Your task to perform on an android device: turn off notifications in google photos Image 0: 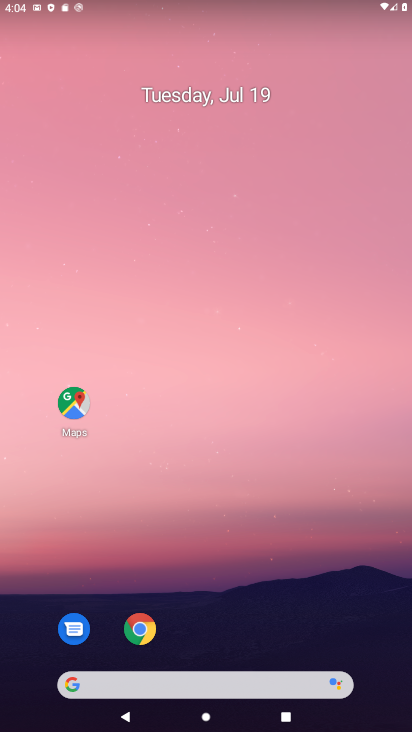
Step 0: drag from (272, 673) to (209, 296)
Your task to perform on an android device: turn off notifications in google photos Image 1: 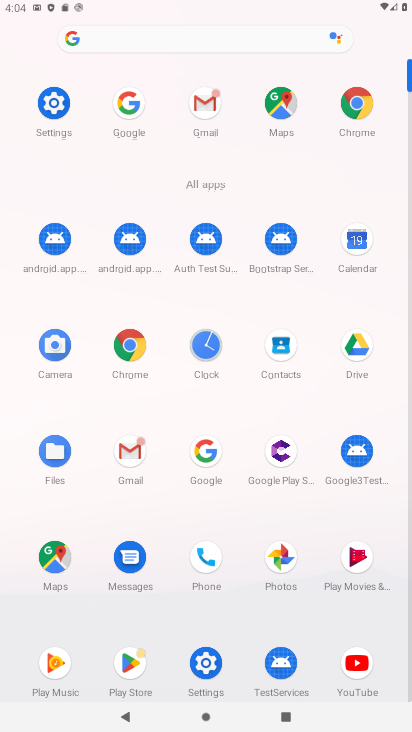
Step 1: click (280, 542)
Your task to perform on an android device: turn off notifications in google photos Image 2: 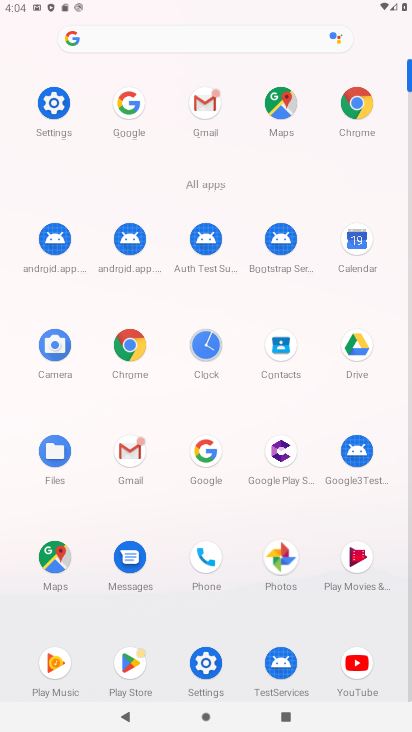
Step 2: click (278, 548)
Your task to perform on an android device: turn off notifications in google photos Image 3: 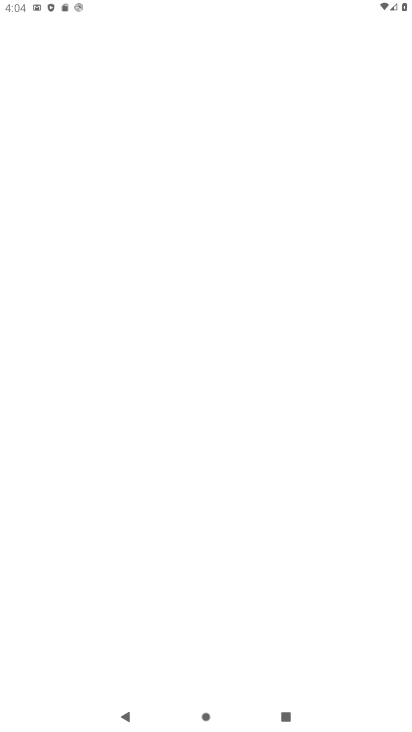
Step 3: click (282, 549)
Your task to perform on an android device: turn off notifications in google photos Image 4: 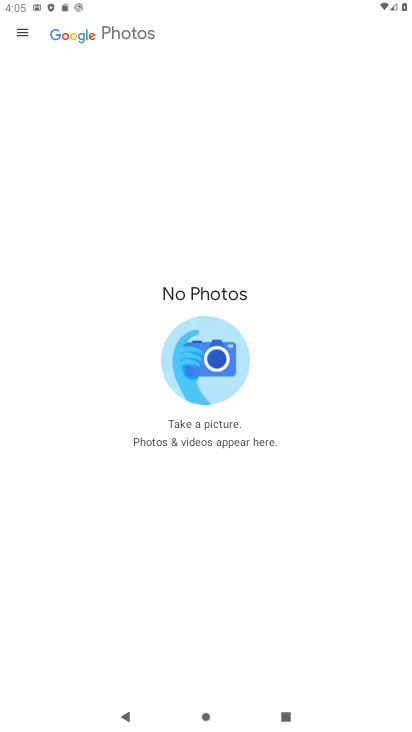
Step 4: drag from (27, 29) to (75, 196)
Your task to perform on an android device: turn off notifications in google photos Image 5: 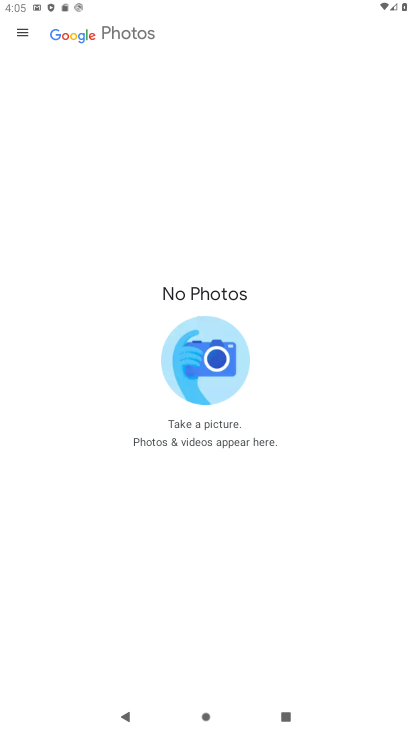
Step 5: click (25, 33)
Your task to perform on an android device: turn off notifications in google photos Image 6: 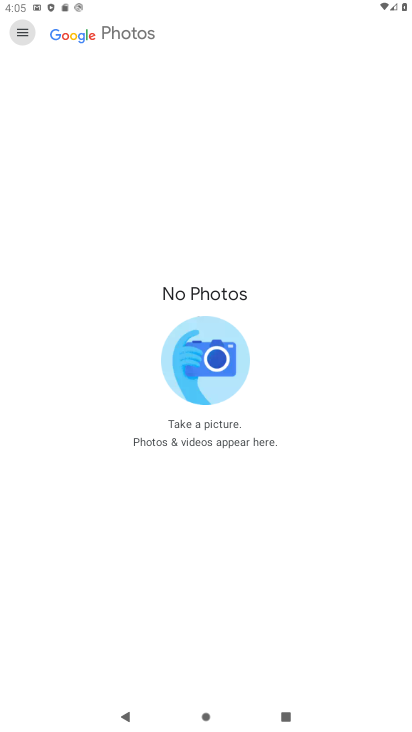
Step 6: click (27, 32)
Your task to perform on an android device: turn off notifications in google photos Image 7: 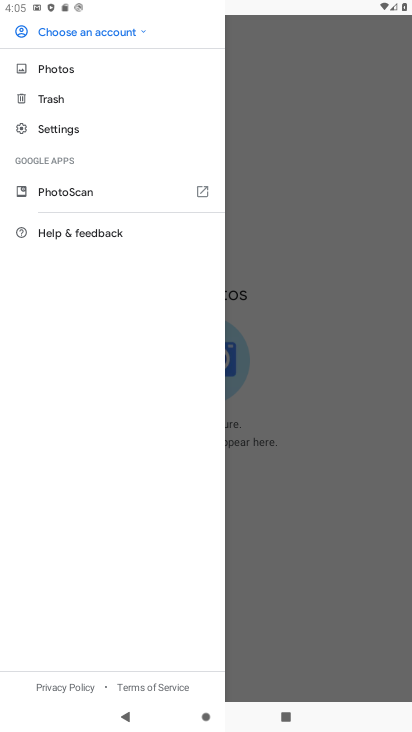
Step 7: click (52, 127)
Your task to perform on an android device: turn off notifications in google photos Image 8: 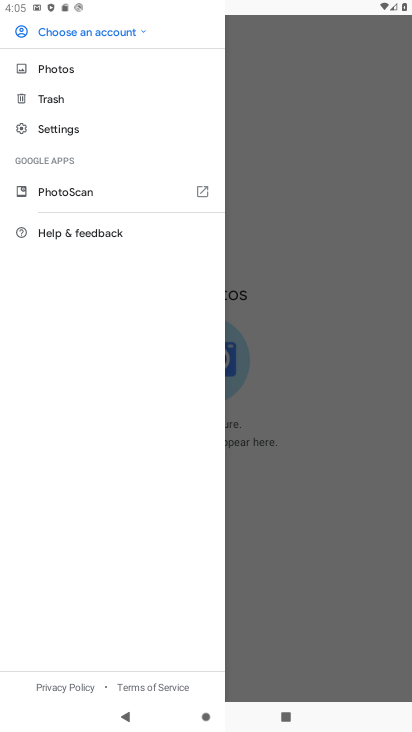
Step 8: click (60, 122)
Your task to perform on an android device: turn off notifications in google photos Image 9: 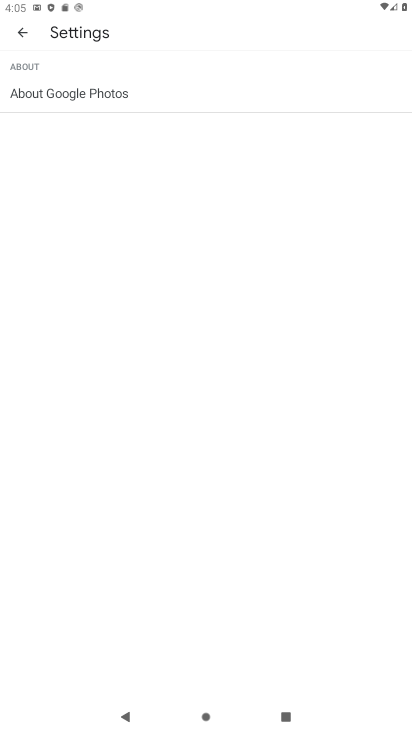
Step 9: click (13, 34)
Your task to perform on an android device: turn off notifications in google photos Image 10: 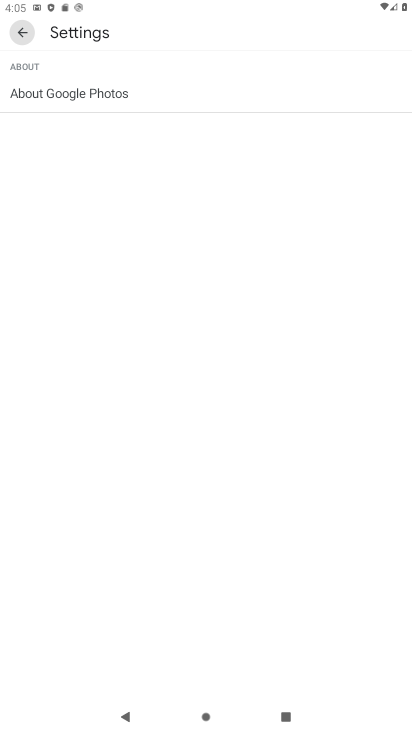
Step 10: click (10, 35)
Your task to perform on an android device: turn off notifications in google photos Image 11: 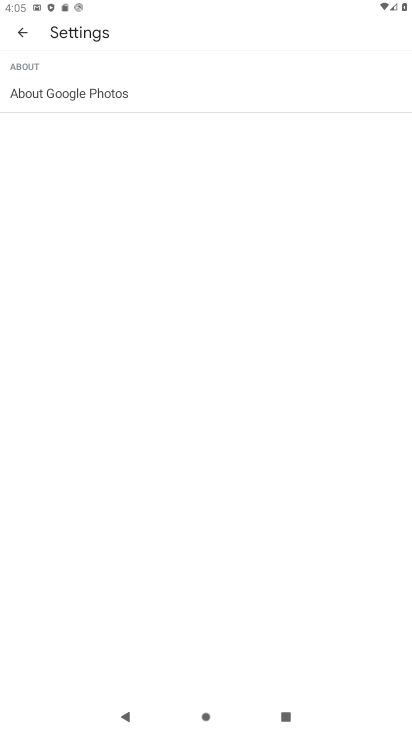
Step 11: click (10, 35)
Your task to perform on an android device: turn off notifications in google photos Image 12: 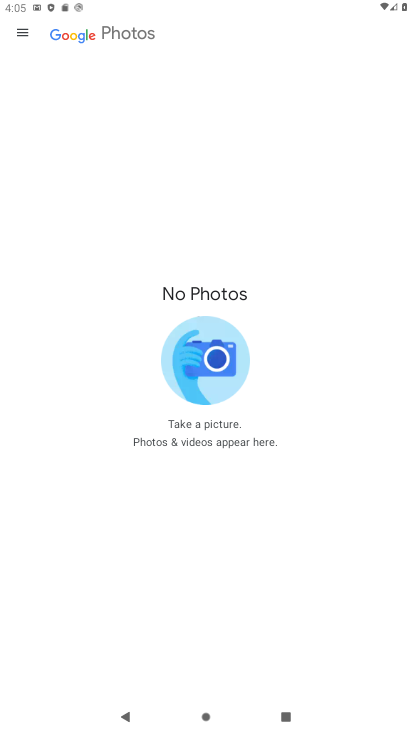
Step 12: click (22, 27)
Your task to perform on an android device: turn off notifications in google photos Image 13: 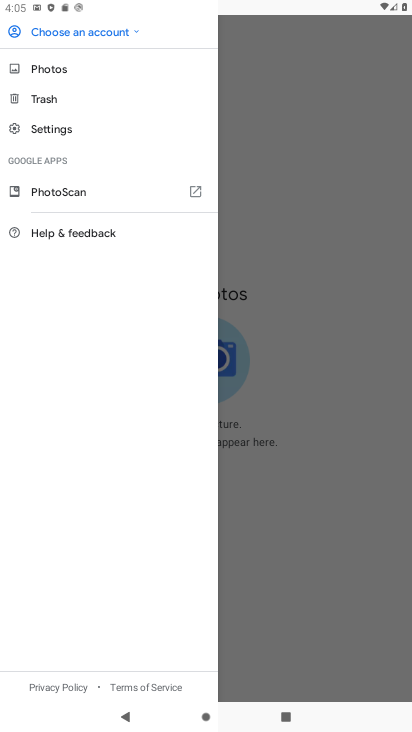
Step 13: click (25, 30)
Your task to perform on an android device: turn off notifications in google photos Image 14: 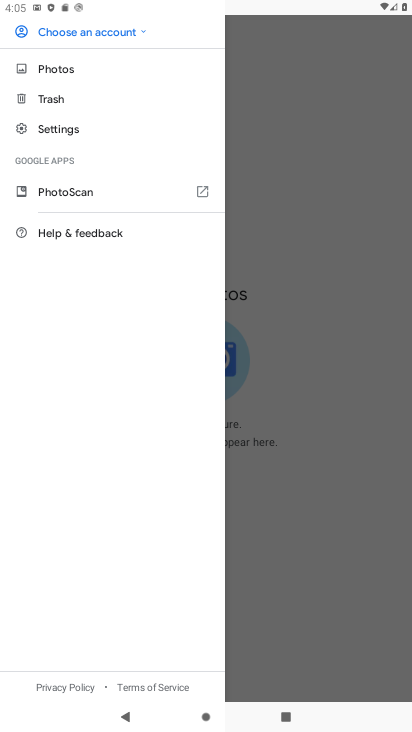
Step 14: click (25, 30)
Your task to perform on an android device: turn off notifications in google photos Image 15: 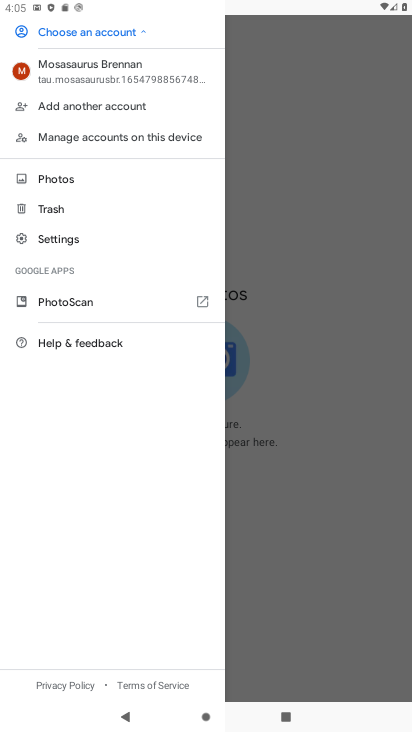
Step 15: click (25, 30)
Your task to perform on an android device: turn off notifications in google photos Image 16: 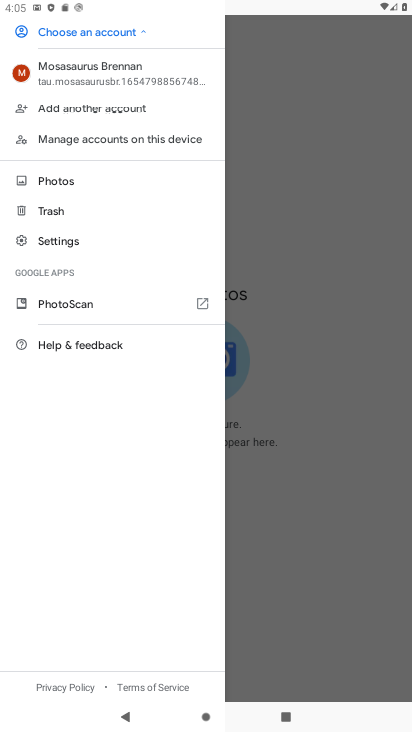
Step 16: click (65, 229)
Your task to perform on an android device: turn off notifications in google photos Image 17: 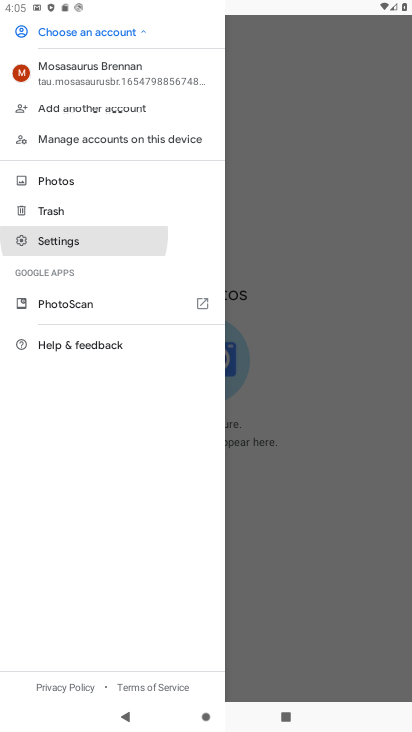
Step 17: click (62, 247)
Your task to perform on an android device: turn off notifications in google photos Image 18: 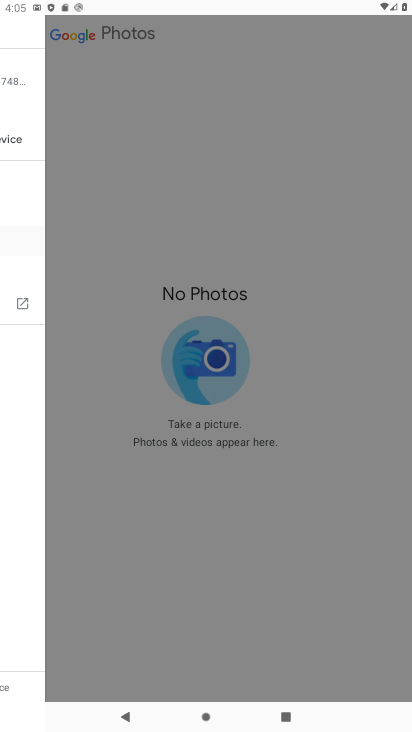
Step 18: click (62, 247)
Your task to perform on an android device: turn off notifications in google photos Image 19: 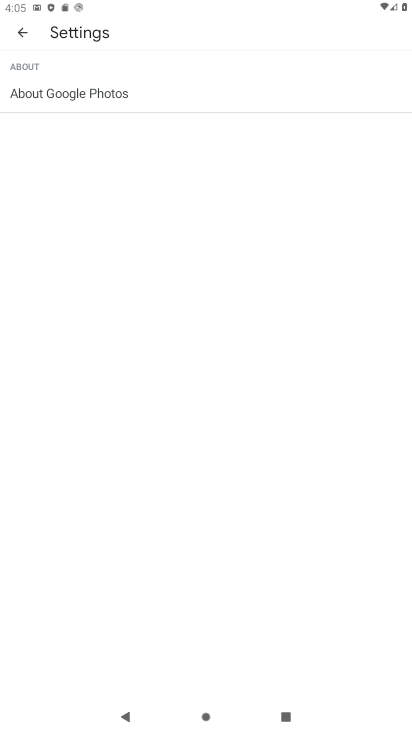
Step 19: click (63, 247)
Your task to perform on an android device: turn off notifications in google photos Image 20: 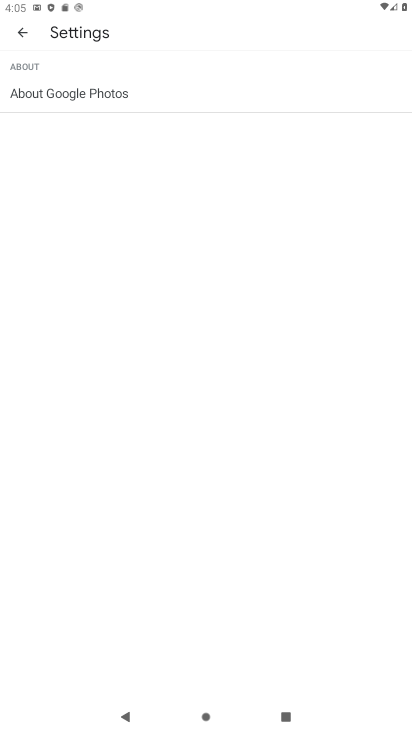
Step 20: click (88, 95)
Your task to perform on an android device: turn off notifications in google photos Image 21: 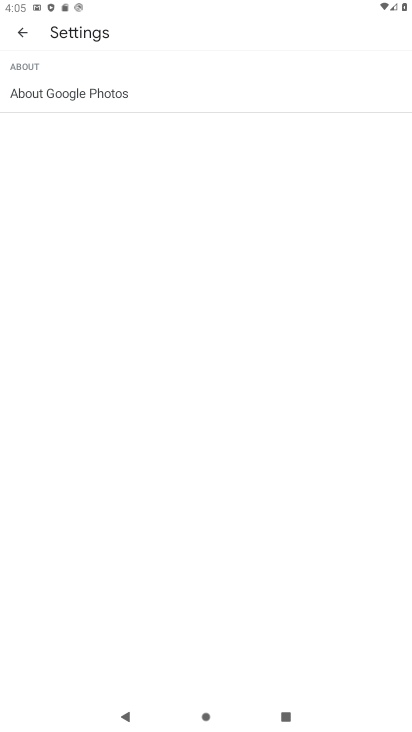
Step 21: click (88, 96)
Your task to perform on an android device: turn off notifications in google photos Image 22: 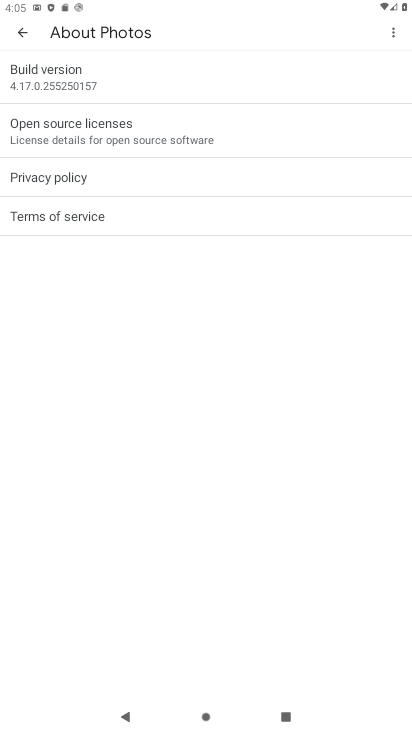
Step 22: click (115, 426)
Your task to perform on an android device: turn off notifications in google photos Image 23: 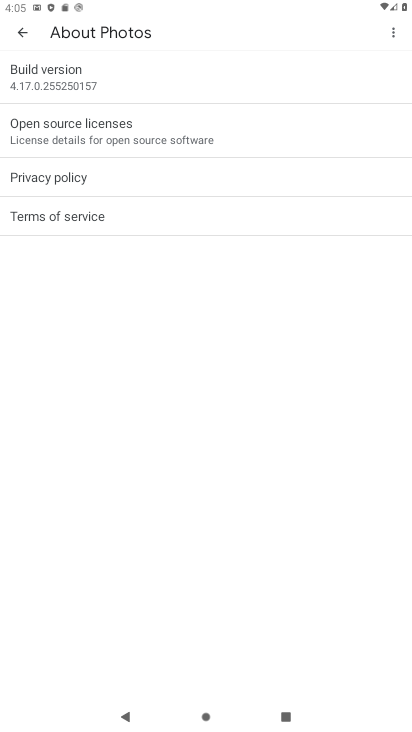
Step 23: click (18, 27)
Your task to perform on an android device: turn off notifications in google photos Image 24: 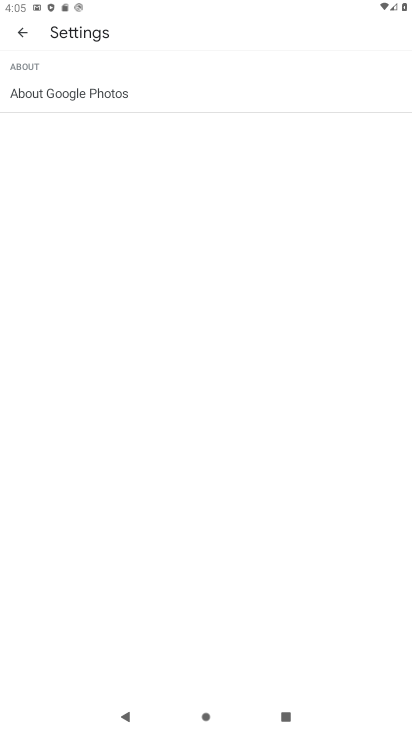
Step 24: click (14, 33)
Your task to perform on an android device: turn off notifications in google photos Image 25: 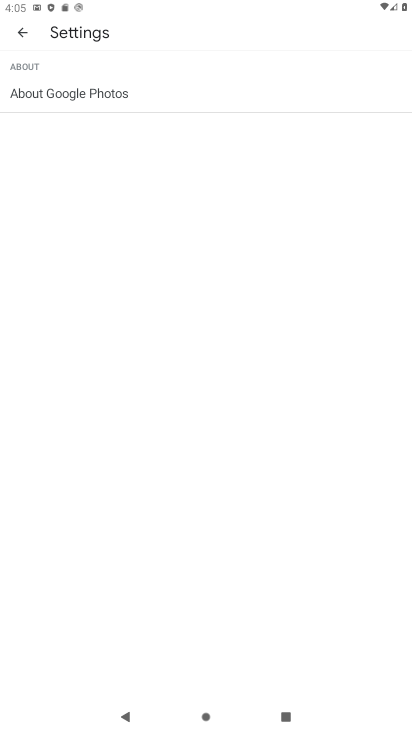
Step 25: click (14, 32)
Your task to perform on an android device: turn off notifications in google photos Image 26: 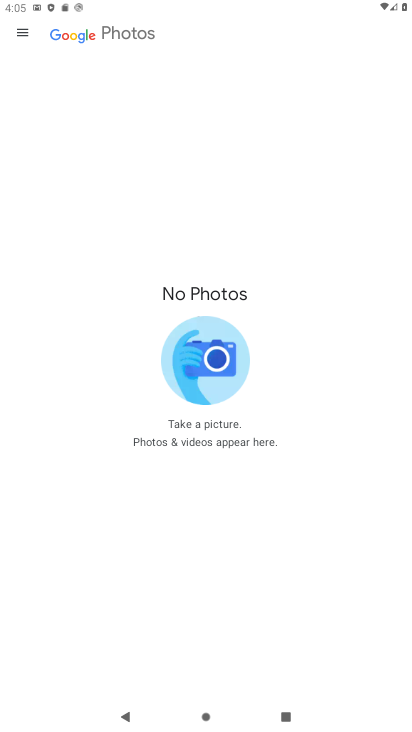
Step 26: click (21, 34)
Your task to perform on an android device: turn off notifications in google photos Image 27: 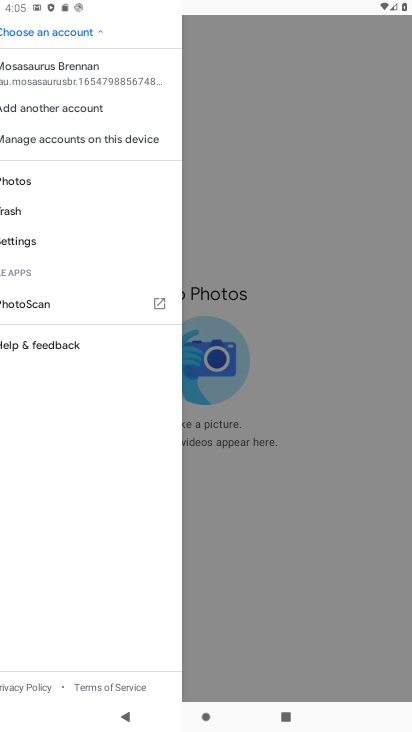
Step 27: click (21, 34)
Your task to perform on an android device: turn off notifications in google photos Image 28: 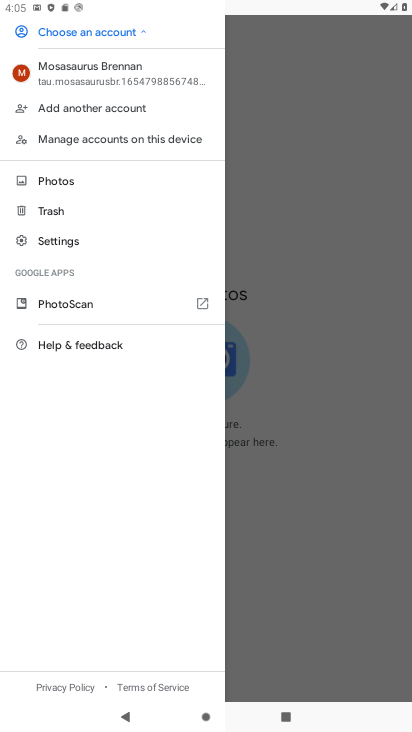
Step 28: click (48, 241)
Your task to perform on an android device: turn off notifications in google photos Image 29: 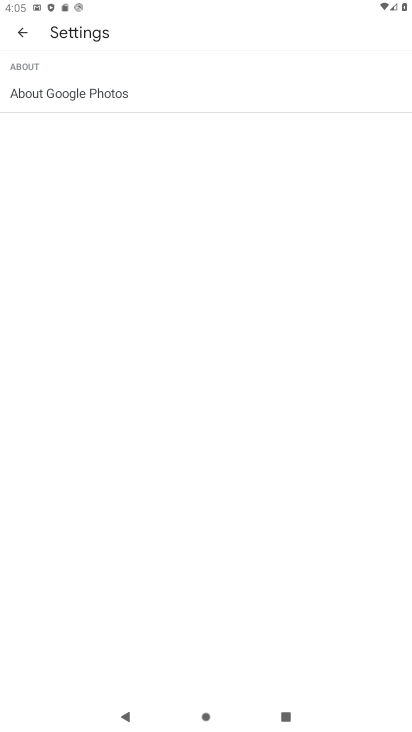
Step 29: click (24, 32)
Your task to perform on an android device: turn off notifications in google photos Image 30: 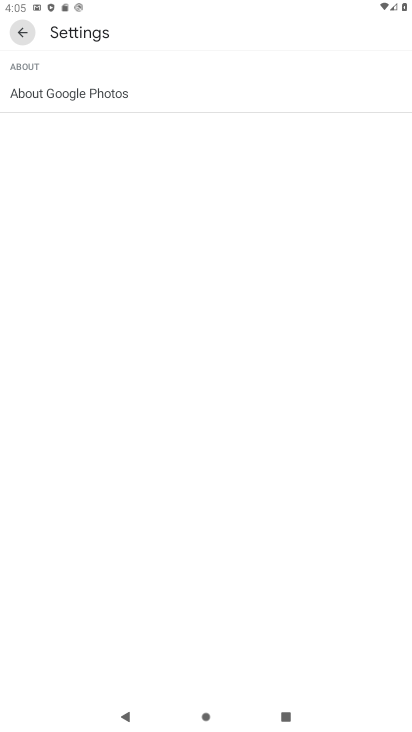
Step 30: click (23, 34)
Your task to perform on an android device: turn off notifications in google photos Image 31: 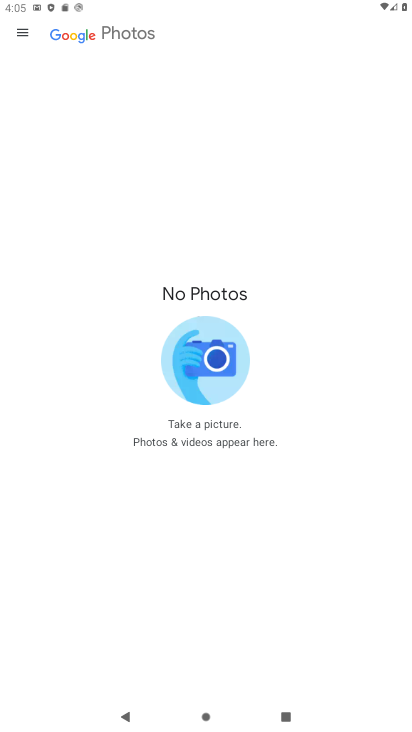
Step 31: click (26, 32)
Your task to perform on an android device: turn off notifications in google photos Image 32: 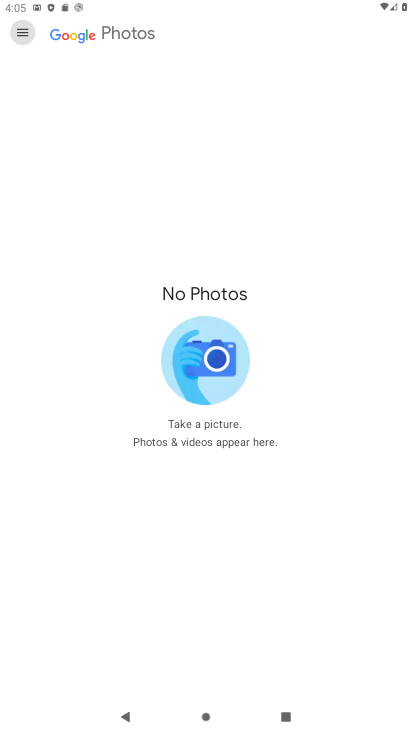
Step 32: click (26, 31)
Your task to perform on an android device: turn off notifications in google photos Image 33: 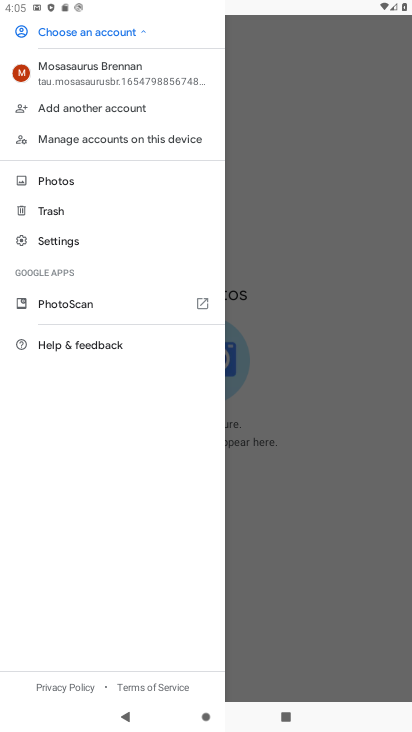
Step 33: click (69, 61)
Your task to perform on an android device: turn off notifications in google photos Image 34: 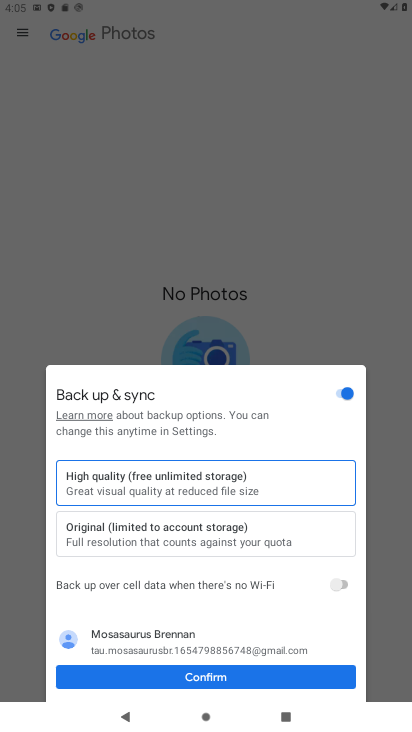
Step 34: click (228, 675)
Your task to perform on an android device: turn off notifications in google photos Image 35: 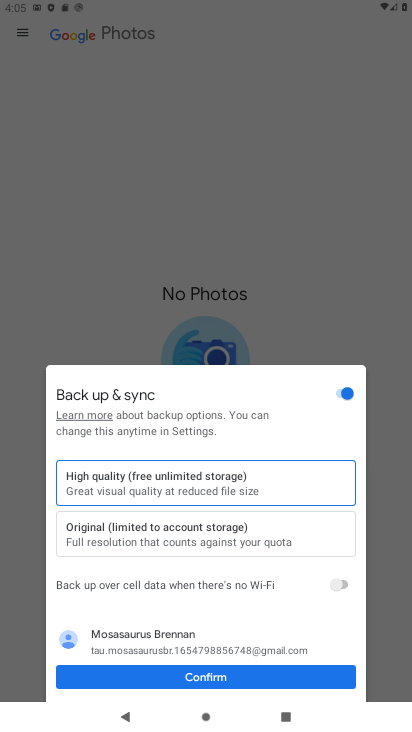
Step 35: click (228, 673)
Your task to perform on an android device: turn off notifications in google photos Image 36: 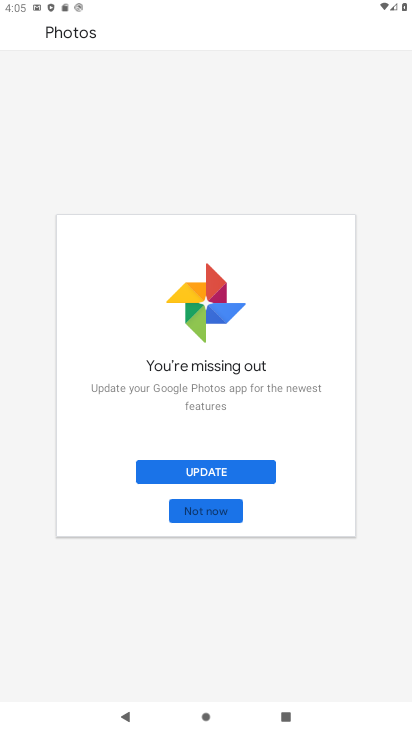
Step 36: task complete